Your task to perform on an android device: toggle airplane mode Image 0: 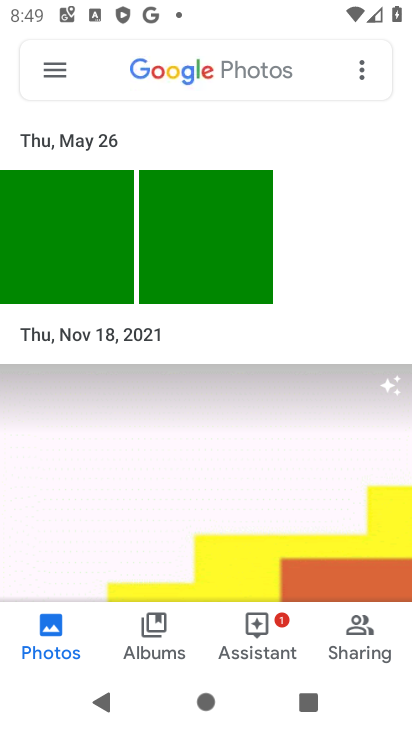
Step 0: drag from (244, 12) to (192, 463)
Your task to perform on an android device: toggle airplane mode Image 1: 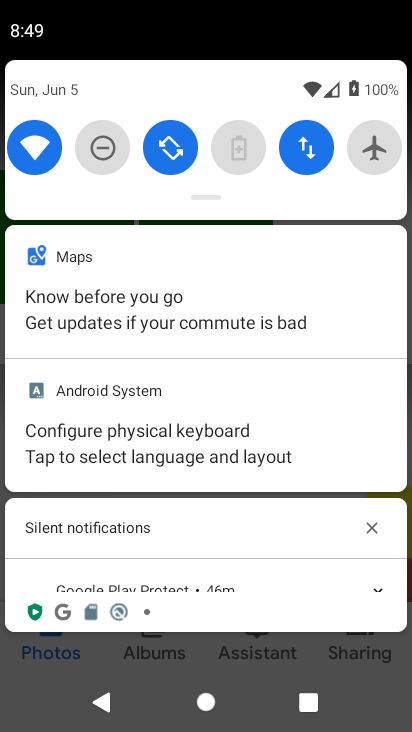
Step 1: click (371, 157)
Your task to perform on an android device: toggle airplane mode Image 2: 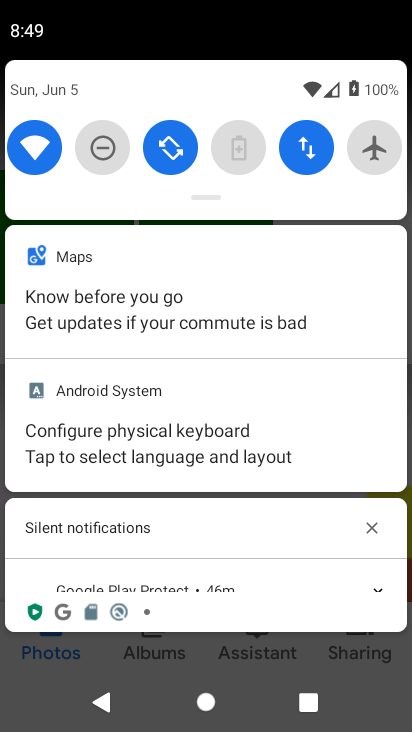
Step 2: click (371, 157)
Your task to perform on an android device: toggle airplane mode Image 3: 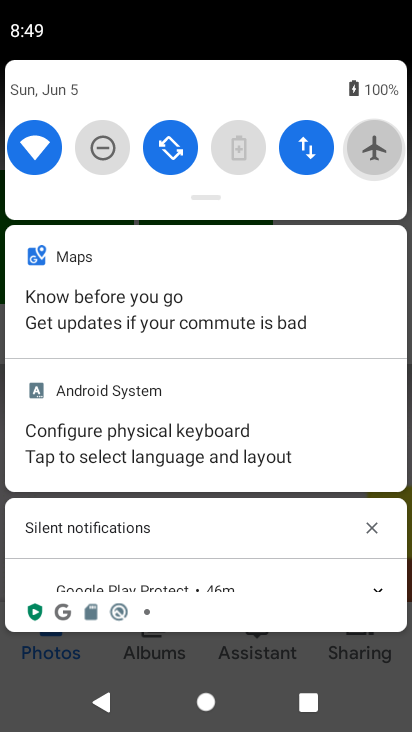
Step 3: click (371, 157)
Your task to perform on an android device: toggle airplane mode Image 4: 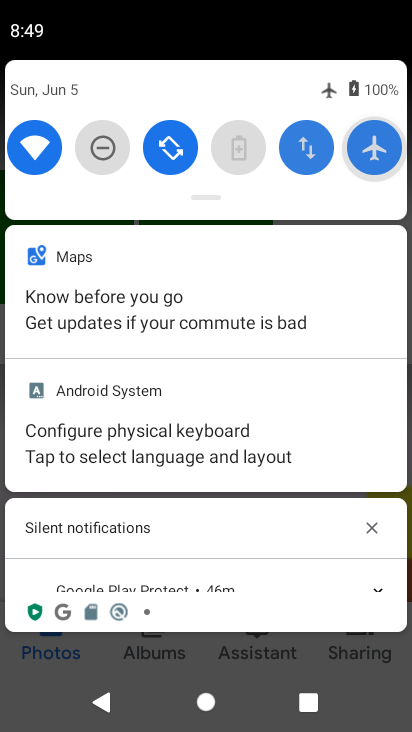
Step 4: click (371, 157)
Your task to perform on an android device: toggle airplane mode Image 5: 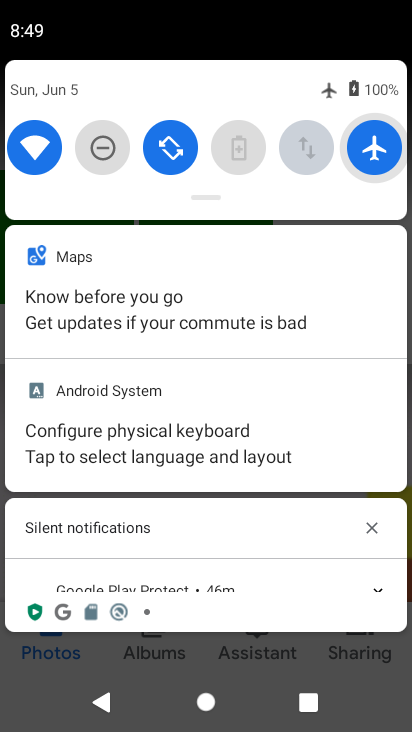
Step 5: click (371, 157)
Your task to perform on an android device: toggle airplane mode Image 6: 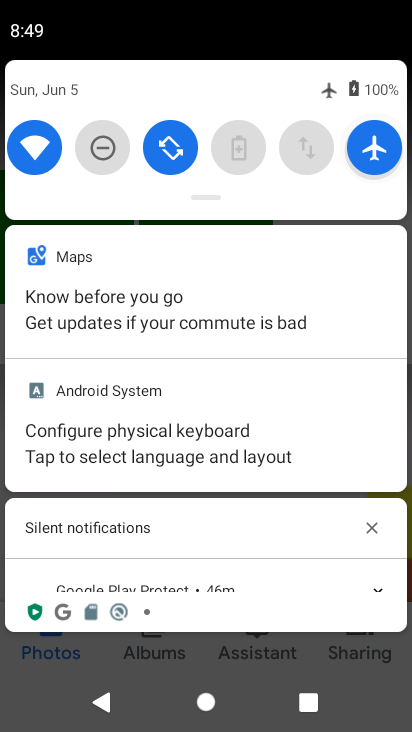
Step 6: click (371, 157)
Your task to perform on an android device: toggle airplane mode Image 7: 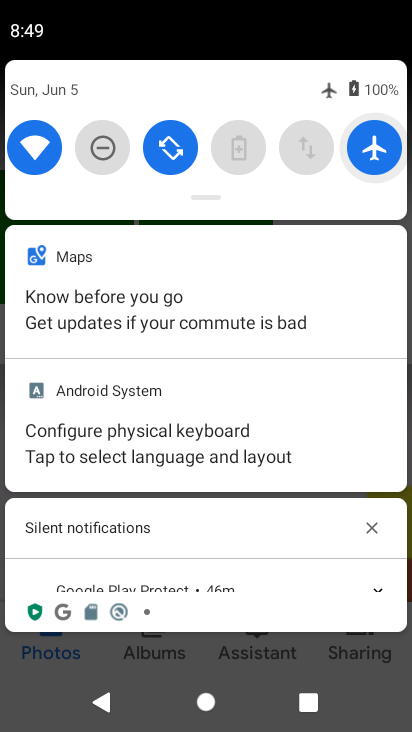
Step 7: click (371, 157)
Your task to perform on an android device: toggle airplane mode Image 8: 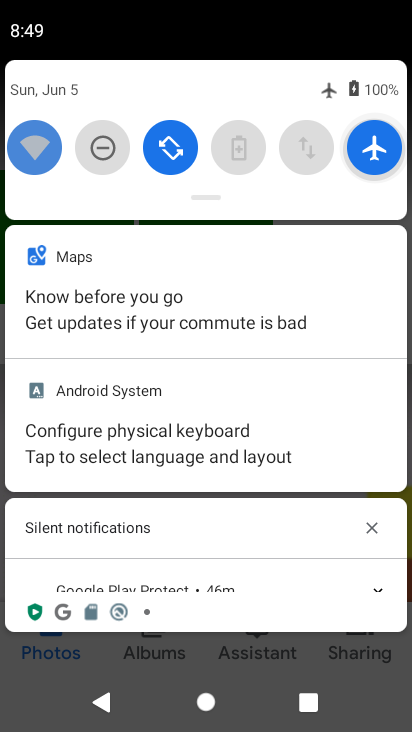
Step 8: click (371, 157)
Your task to perform on an android device: toggle airplane mode Image 9: 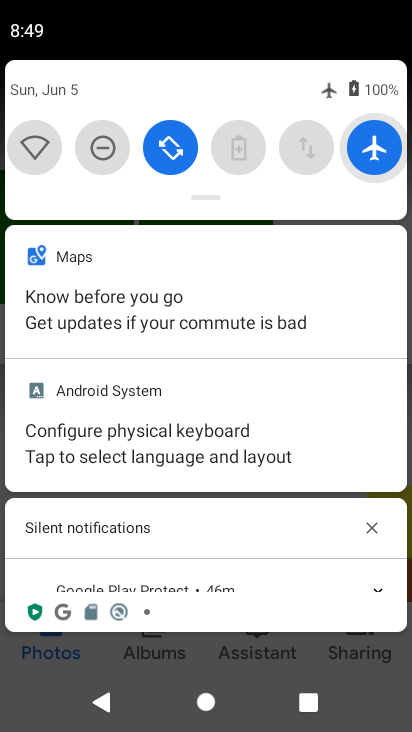
Step 9: click (371, 157)
Your task to perform on an android device: toggle airplane mode Image 10: 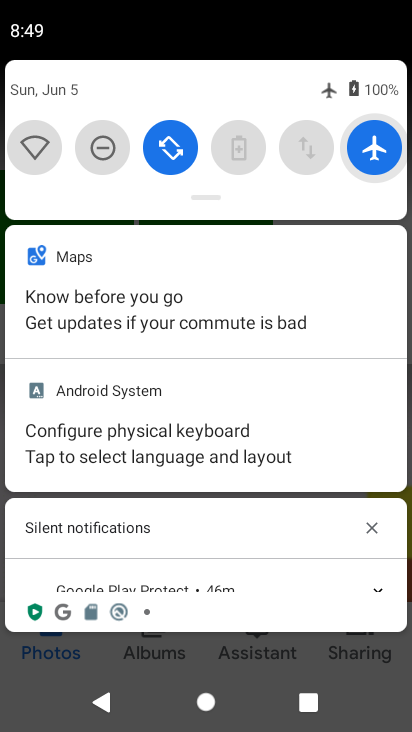
Step 10: click (371, 157)
Your task to perform on an android device: toggle airplane mode Image 11: 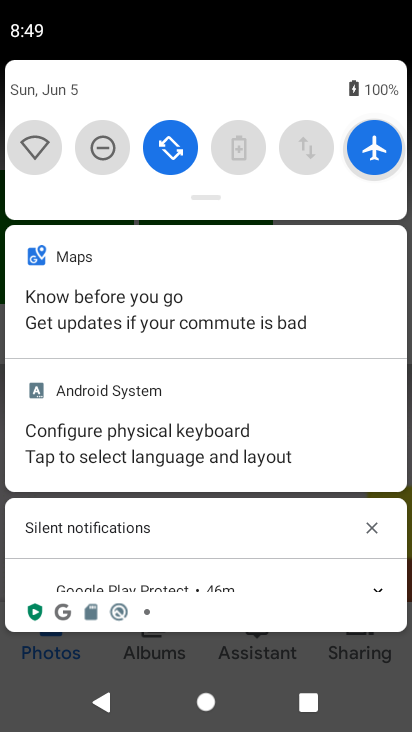
Step 11: click (371, 157)
Your task to perform on an android device: toggle airplane mode Image 12: 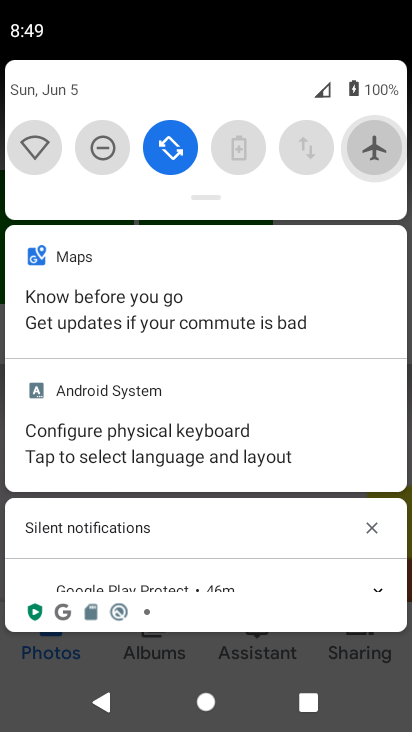
Step 12: click (371, 157)
Your task to perform on an android device: toggle airplane mode Image 13: 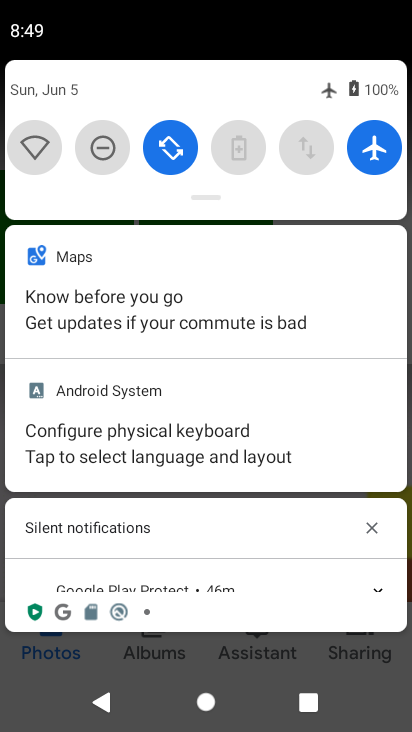
Step 13: click (371, 157)
Your task to perform on an android device: toggle airplane mode Image 14: 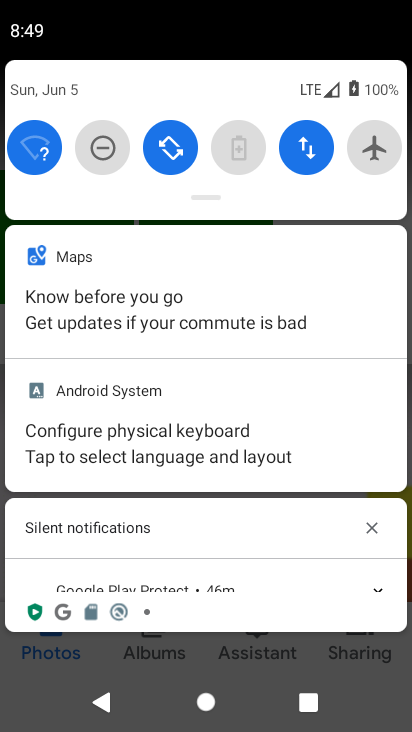
Step 14: task complete